Your task to perform on an android device: Open Chrome and go to the settings page Image 0: 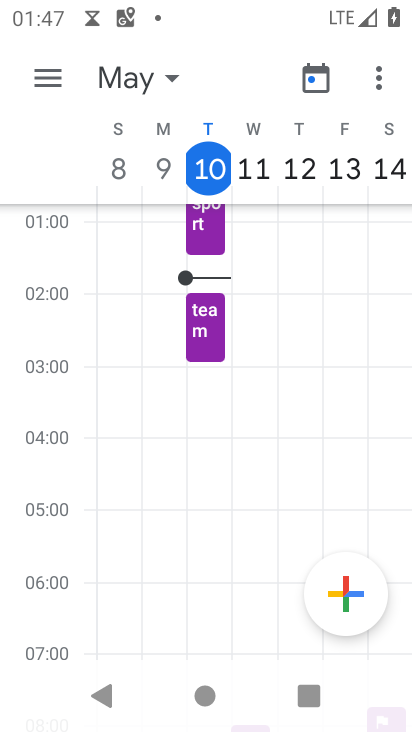
Step 0: press home button
Your task to perform on an android device: Open Chrome and go to the settings page Image 1: 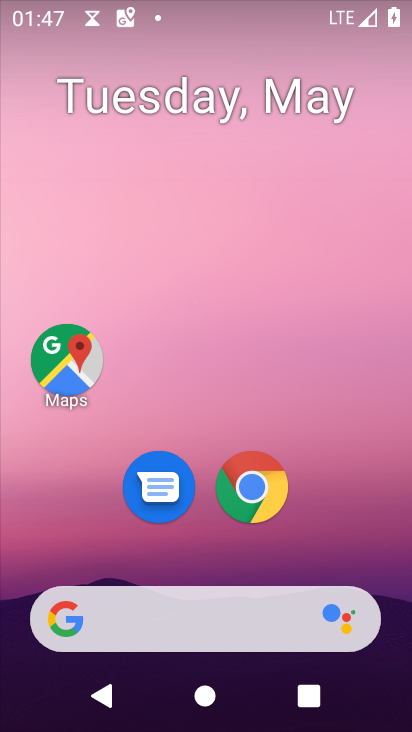
Step 1: click (256, 498)
Your task to perform on an android device: Open Chrome and go to the settings page Image 2: 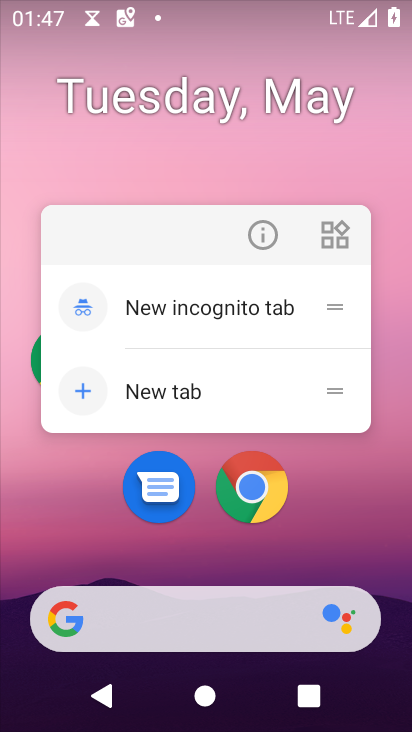
Step 2: click (253, 492)
Your task to perform on an android device: Open Chrome and go to the settings page Image 3: 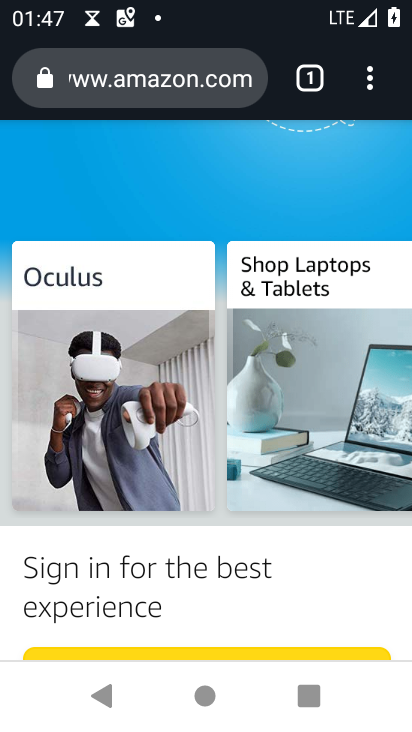
Step 3: click (370, 81)
Your task to perform on an android device: Open Chrome and go to the settings page Image 4: 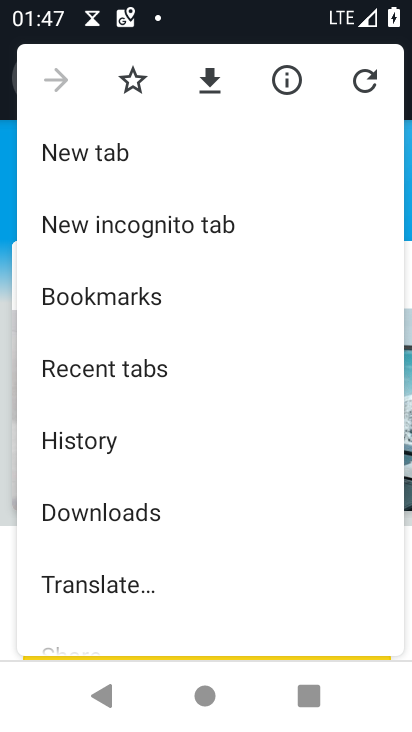
Step 4: drag from (129, 530) to (286, 96)
Your task to perform on an android device: Open Chrome and go to the settings page Image 5: 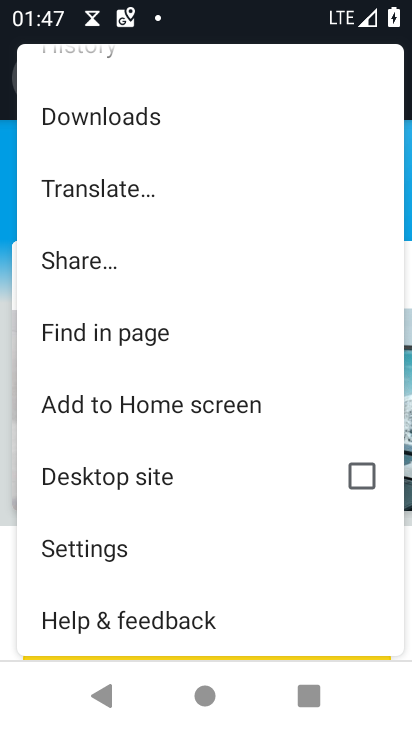
Step 5: click (115, 553)
Your task to perform on an android device: Open Chrome and go to the settings page Image 6: 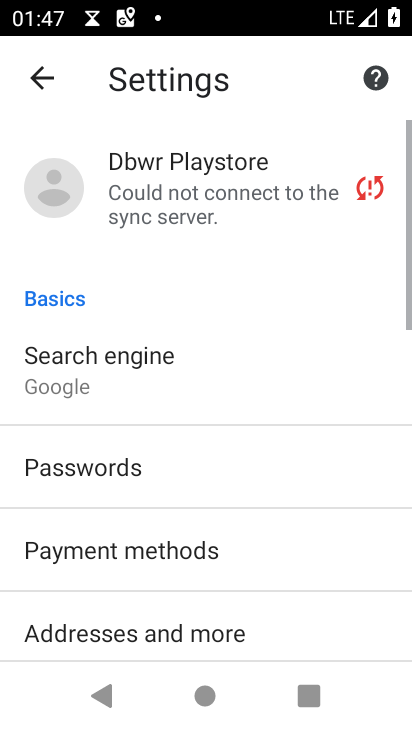
Step 6: task complete